Your task to perform on an android device: Open location settings Image 0: 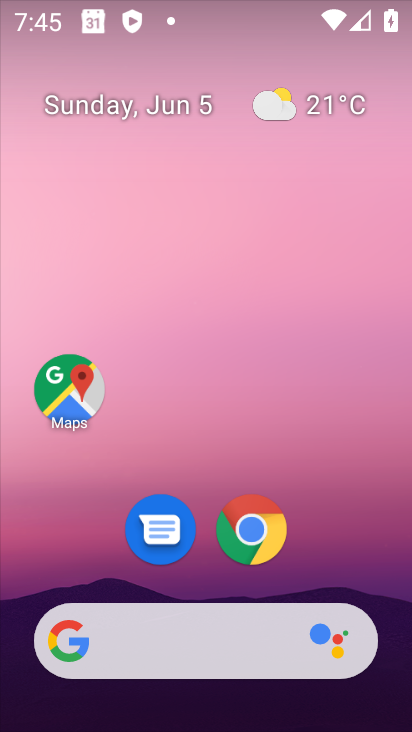
Step 0: drag from (221, 687) to (121, 20)
Your task to perform on an android device: Open location settings Image 1: 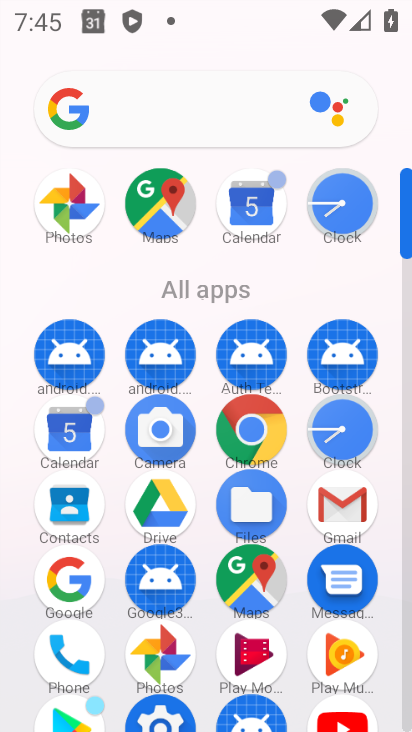
Step 1: click (152, 717)
Your task to perform on an android device: Open location settings Image 2: 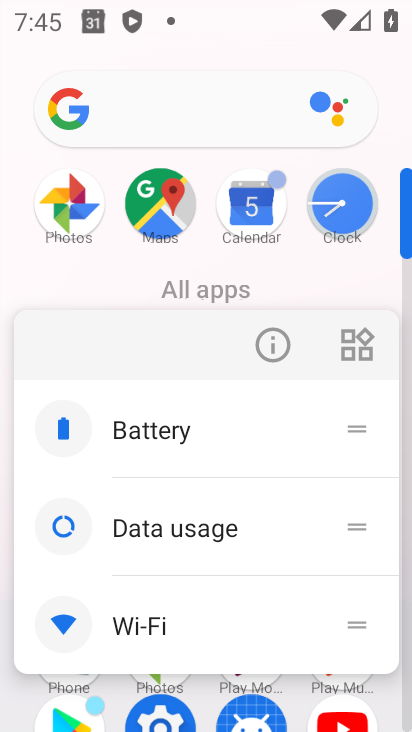
Step 2: click (144, 711)
Your task to perform on an android device: Open location settings Image 3: 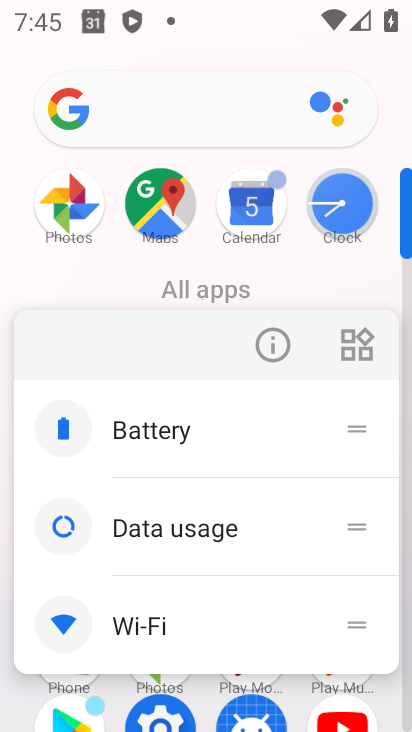
Step 3: click (144, 711)
Your task to perform on an android device: Open location settings Image 4: 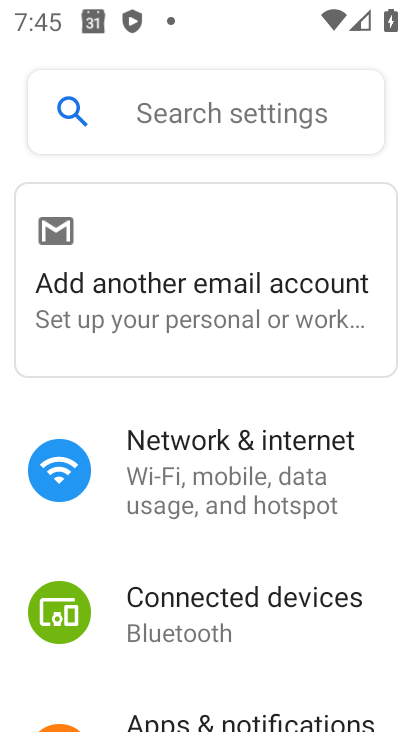
Step 4: drag from (341, 680) to (282, 83)
Your task to perform on an android device: Open location settings Image 5: 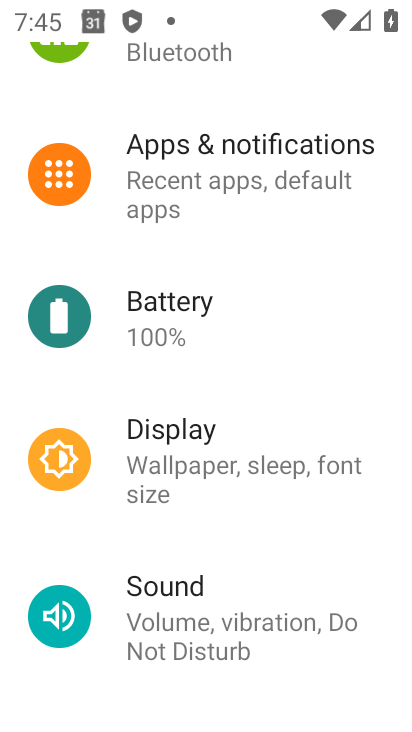
Step 5: drag from (267, 689) to (300, 12)
Your task to perform on an android device: Open location settings Image 6: 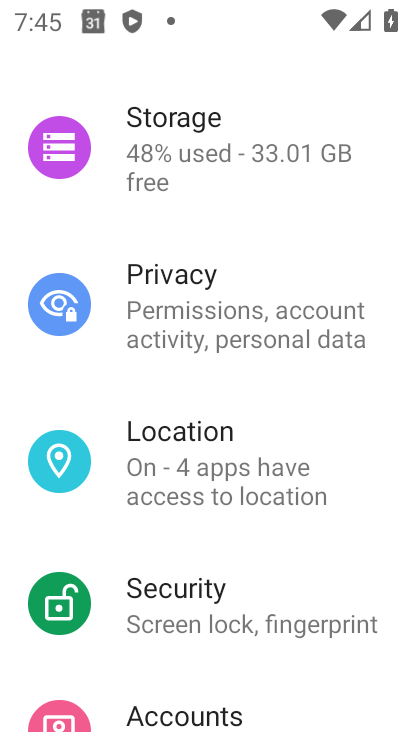
Step 6: click (261, 487)
Your task to perform on an android device: Open location settings Image 7: 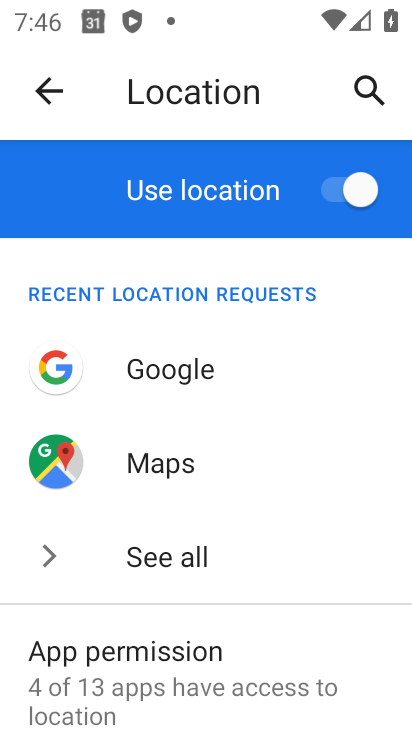
Step 7: task complete